Your task to perform on an android device: Open eBay Image 0: 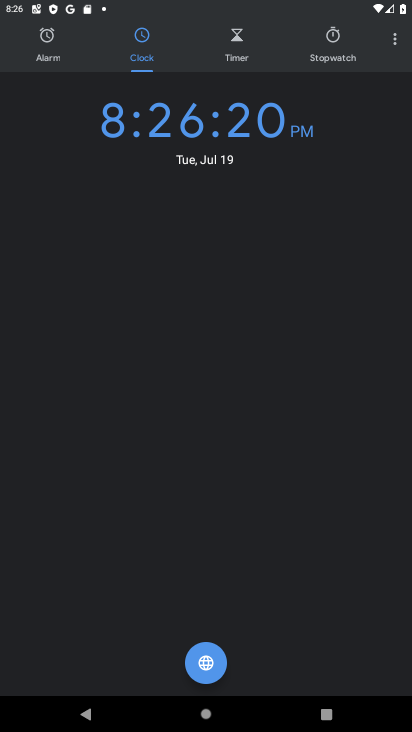
Step 0: press home button
Your task to perform on an android device: Open eBay Image 1: 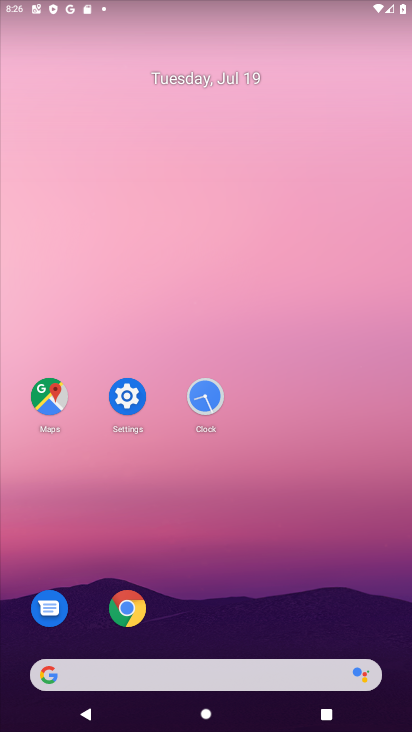
Step 1: click (121, 598)
Your task to perform on an android device: Open eBay Image 2: 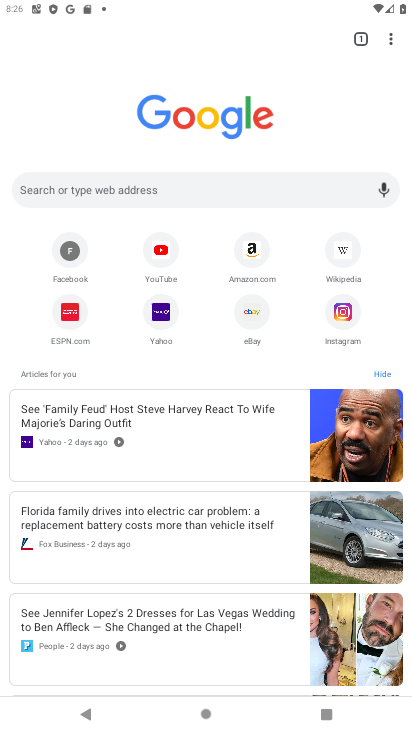
Step 2: click (180, 181)
Your task to perform on an android device: Open eBay Image 3: 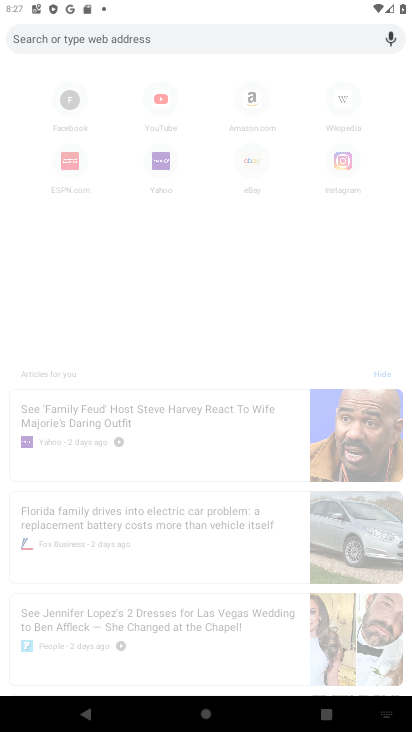
Step 3: type "eBay"
Your task to perform on an android device: Open eBay Image 4: 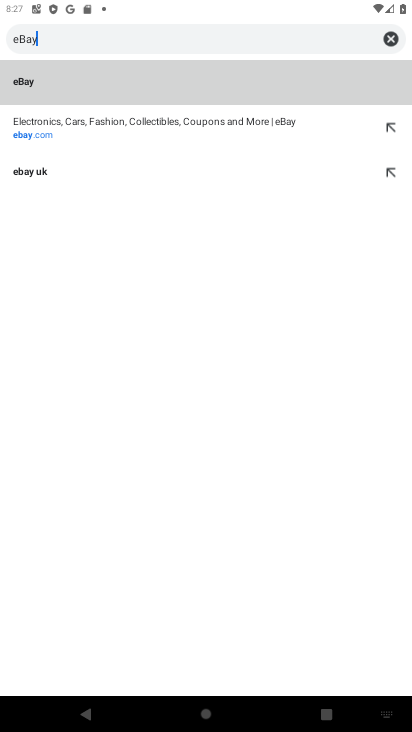
Step 4: click (68, 88)
Your task to perform on an android device: Open eBay Image 5: 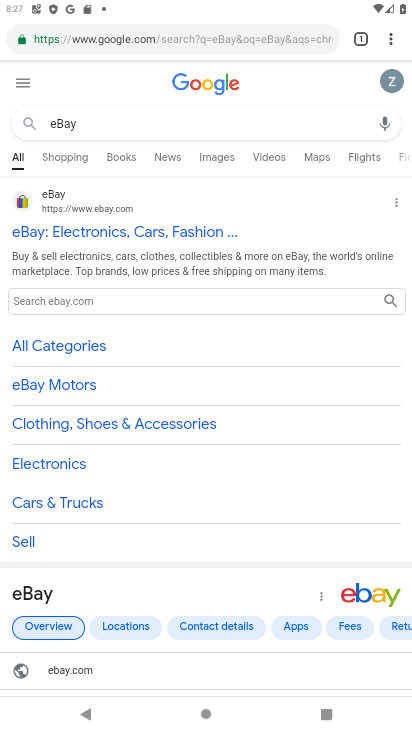
Step 5: task complete